Your task to perform on an android device: install app "Truecaller" Image 0: 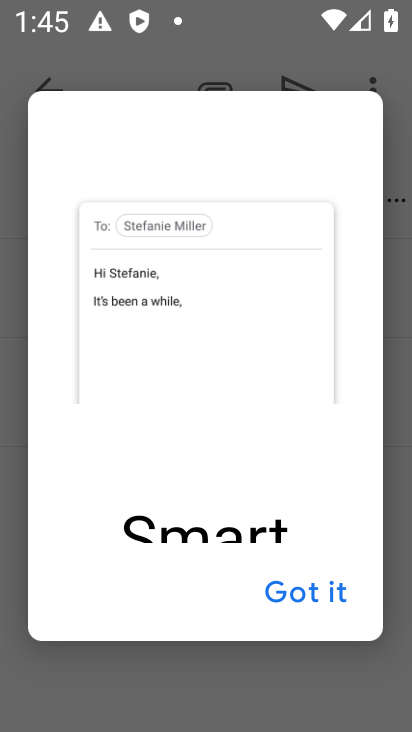
Step 0: press home button
Your task to perform on an android device: install app "Truecaller" Image 1: 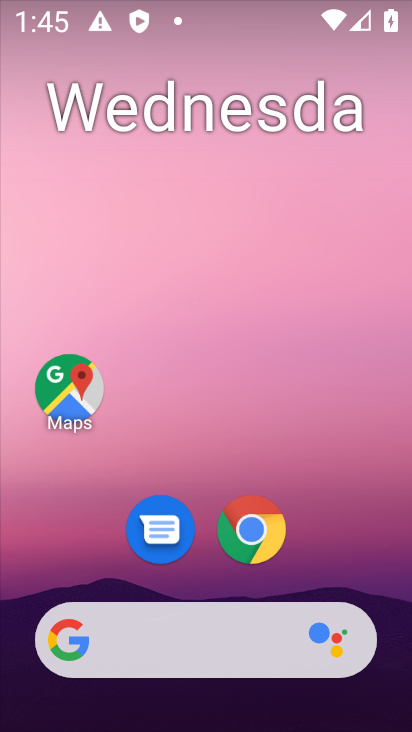
Step 1: drag from (222, 621) to (193, 147)
Your task to perform on an android device: install app "Truecaller" Image 2: 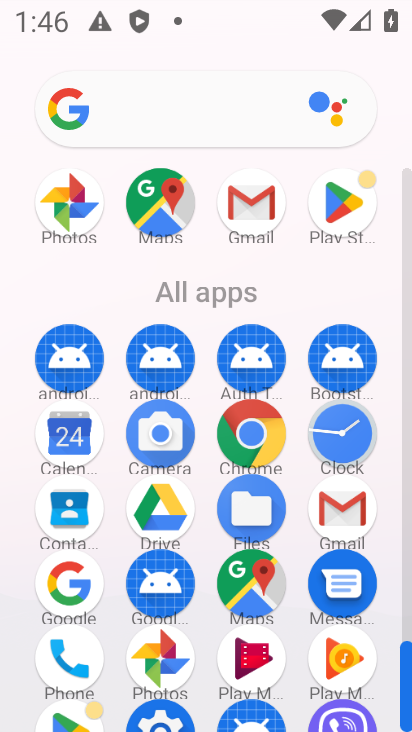
Step 2: click (325, 219)
Your task to perform on an android device: install app "Truecaller" Image 3: 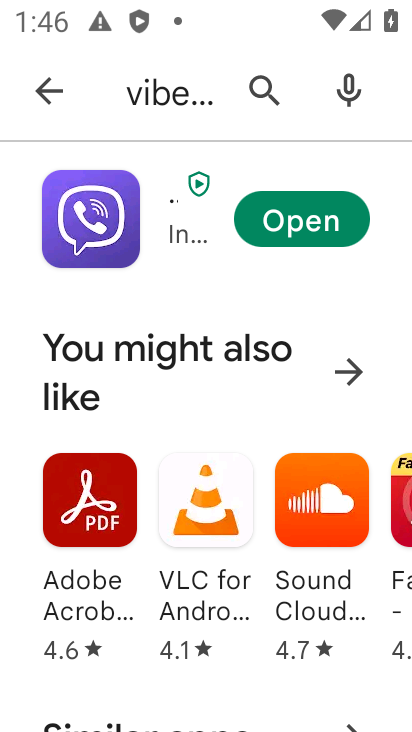
Step 3: click (250, 103)
Your task to perform on an android device: install app "Truecaller" Image 4: 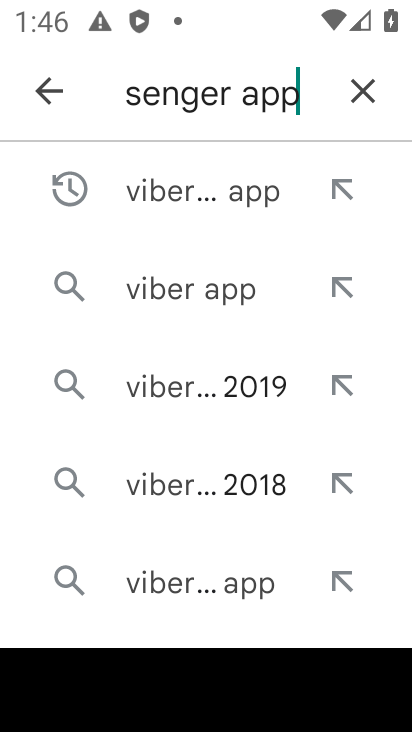
Step 4: click (370, 97)
Your task to perform on an android device: install app "Truecaller" Image 5: 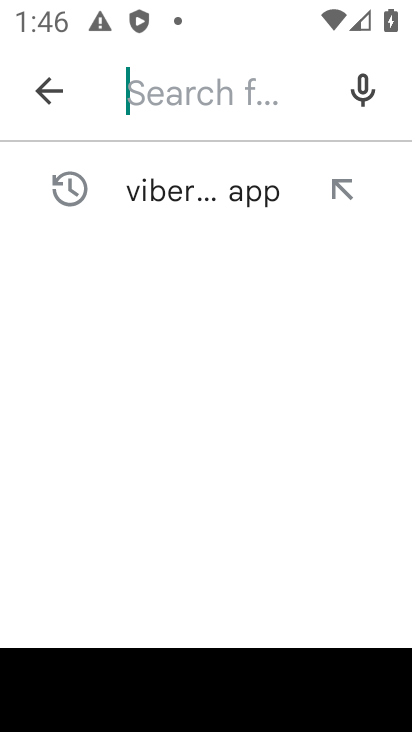
Step 5: type "truecaller"
Your task to perform on an android device: install app "Truecaller" Image 6: 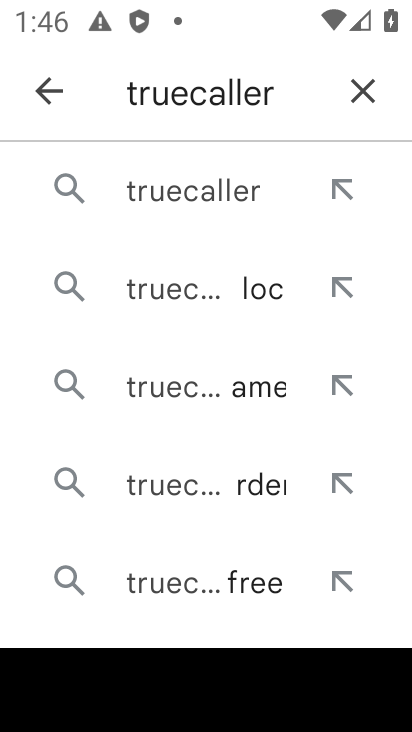
Step 6: click (155, 196)
Your task to perform on an android device: install app "Truecaller" Image 7: 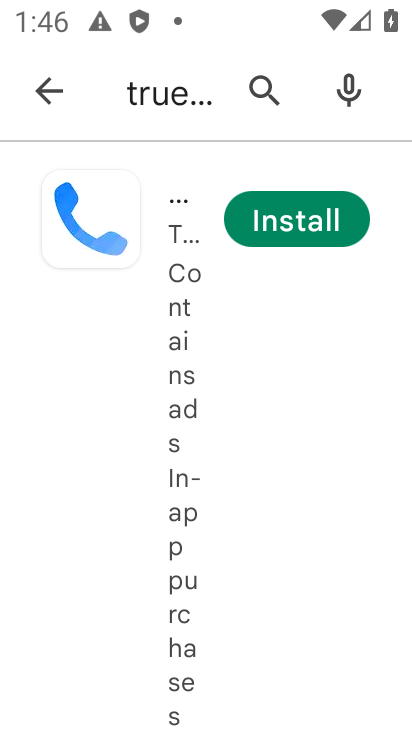
Step 7: click (248, 213)
Your task to perform on an android device: install app "Truecaller" Image 8: 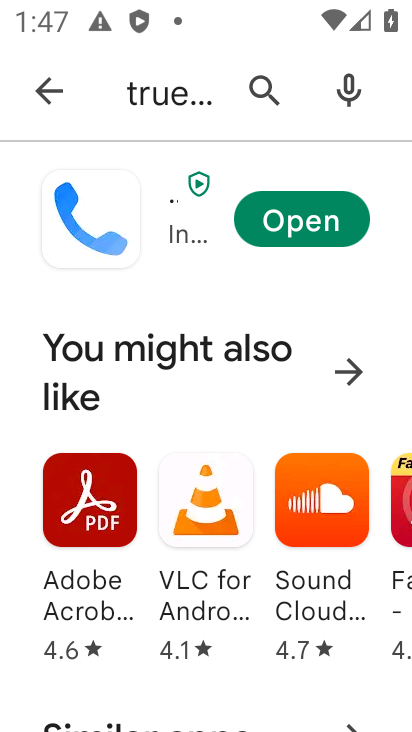
Step 8: task complete